Your task to perform on an android device: toggle improve location accuracy Image 0: 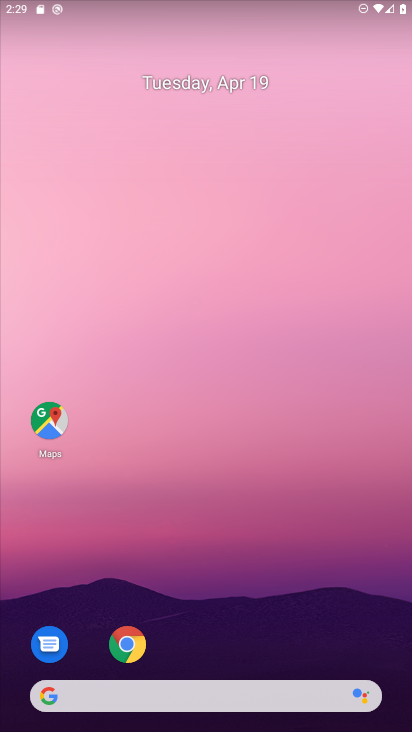
Step 0: drag from (149, 515) to (38, 231)
Your task to perform on an android device: toggle improve location accuracy Image 1: 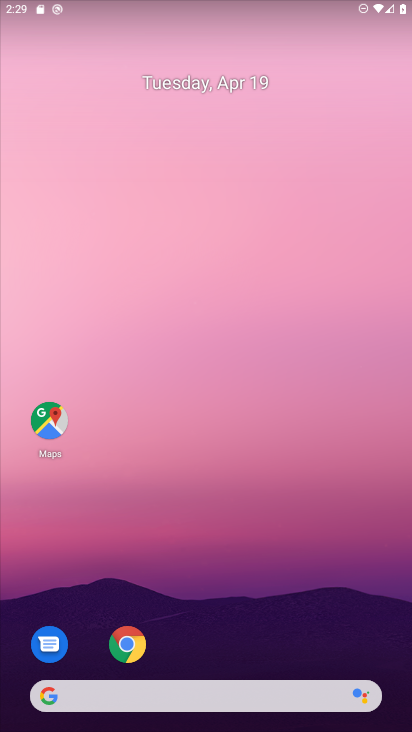
Step 1: drag from (240, 614) to (55, 42)
Your task to perform on an android device: toggle improve location accuracy Image 2: 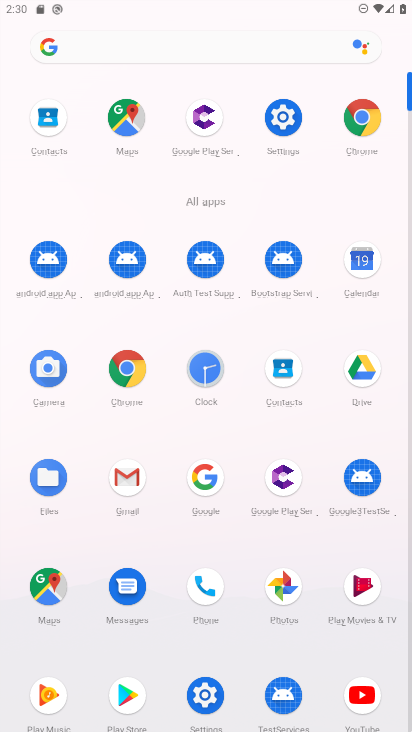
Step 2: click (285, 113)
Your task to perform on an android device: toggle improve location accuracy Image 3: 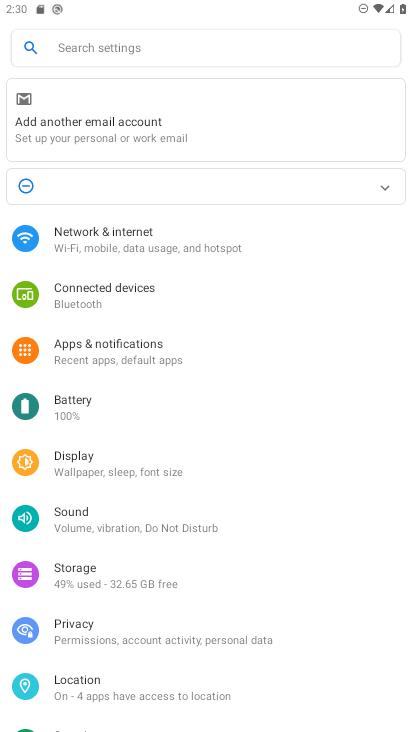
Step 3: click (99, 682)
Your task to perform on an android device: toggle improve location accuracy Image 4: 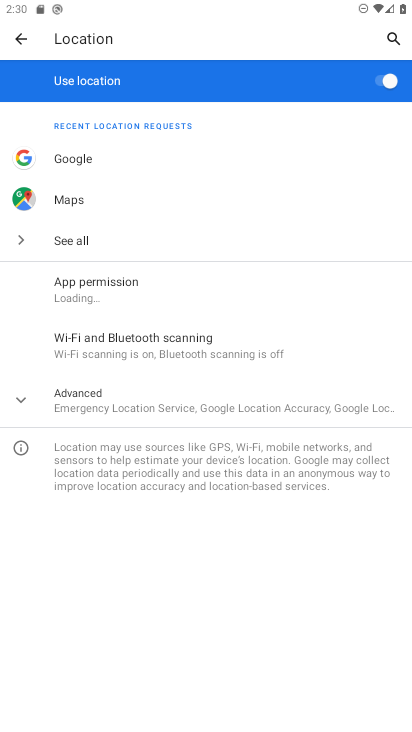
Step 4: click (124, 400)
Your task to perform on an android device: toggle improve location accuracy Image 5: 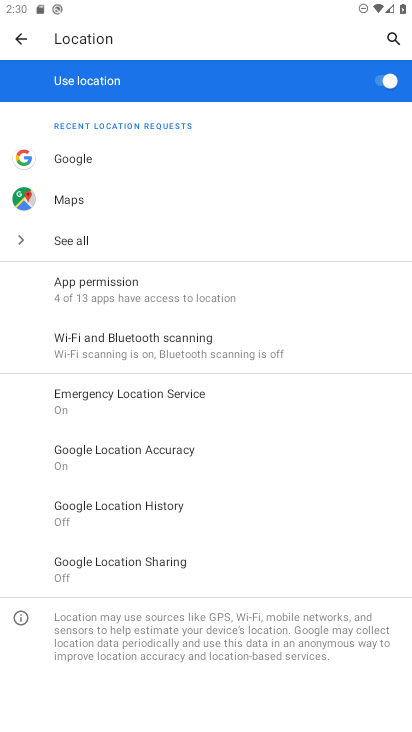
Step 5: click (71, 463)
Your task to perform on an android device: toggle improve location accuracy Image 6: 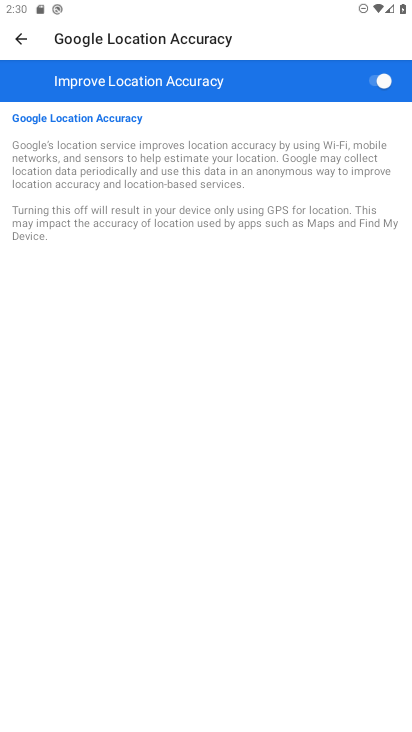
Step 6: click (386, 82)
Your task to perform on an android device: toggle improve location accuracy Image 7: 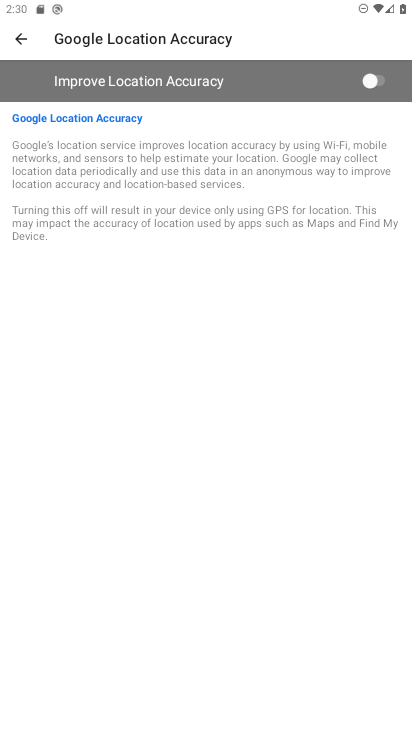
Step 7: task complete